Your task to perform on an android device: Search for seafood restaurants on Google Maps Image 0: 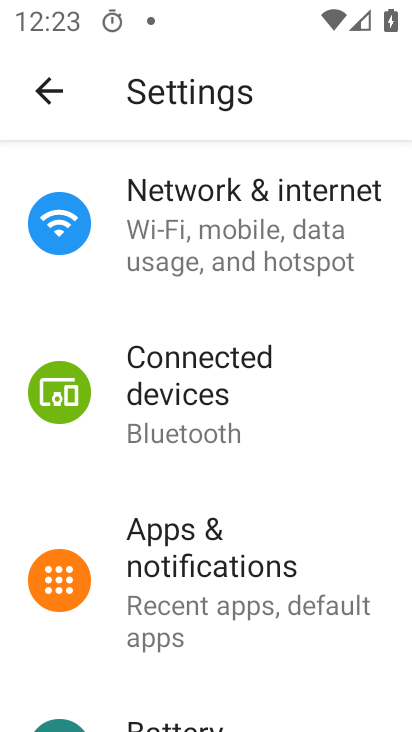
Step 0: press home button
Your task to perform on an android device: Search for seafood restaurants on Google Maps Image 1: 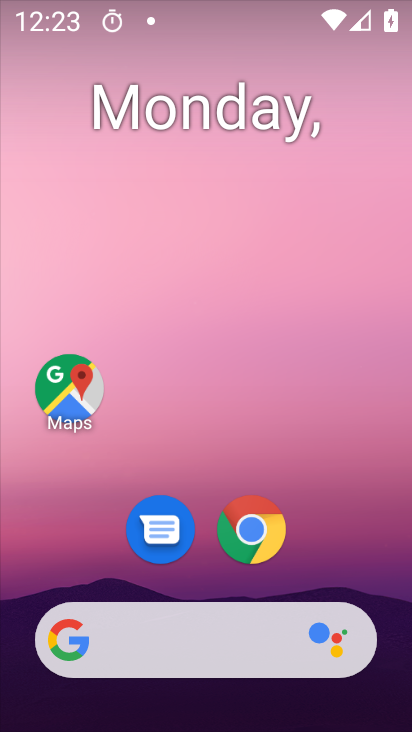
Step 1: click (79, 374)
Your task to perform on an android device: Search for seafood restaurants on Google Maps Image 2: 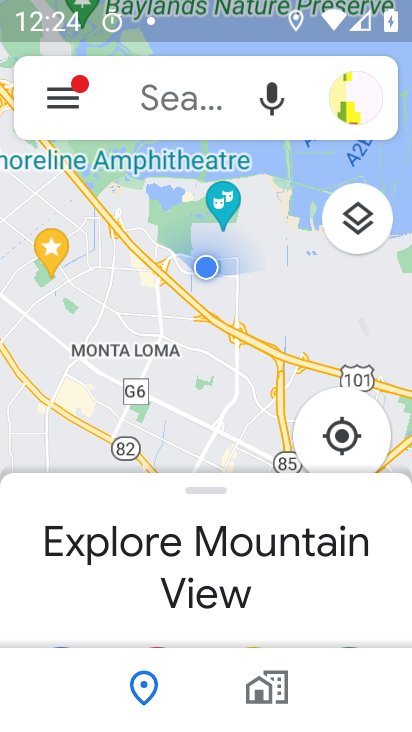
Step 2: click (175, 107)
Your task to perform on an android device: Search for seafood restaurants on Google Maps Image 3: 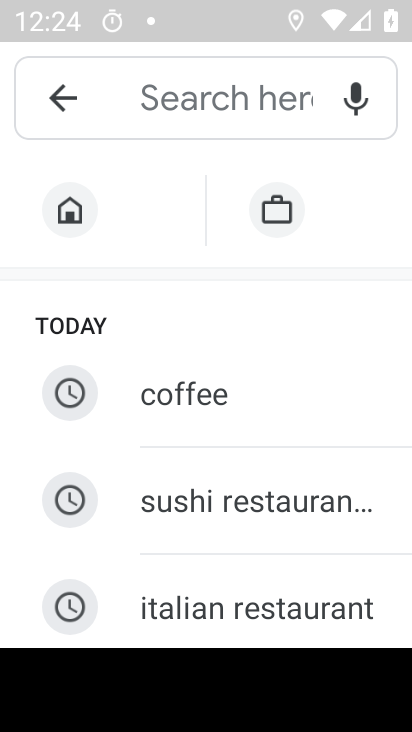
Step 3: type "seafood restaurants"
Your task to perform on an android device: Search for seafood restaurants on Google Maps Image 4: 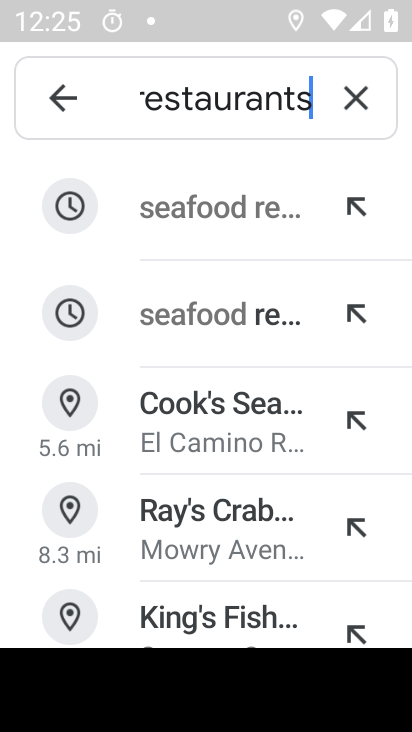
Step 4: click (223, 211)
Your task to perform on an android device: Search for seafood restaurants on Google Maps Image 5: 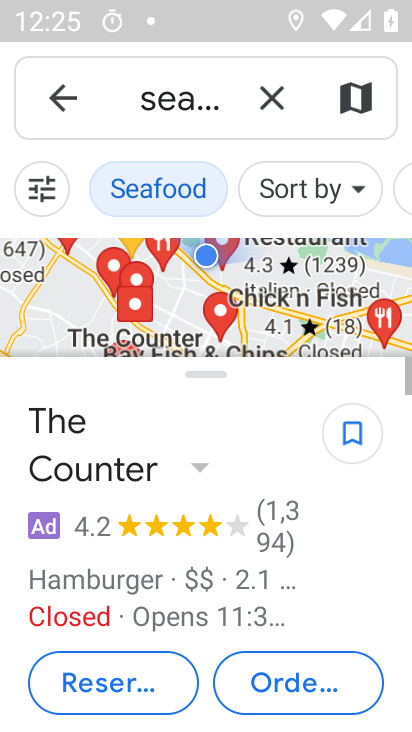
Step 5: task complete